Your task to perform on an android device: Go to sound settings Image 0: 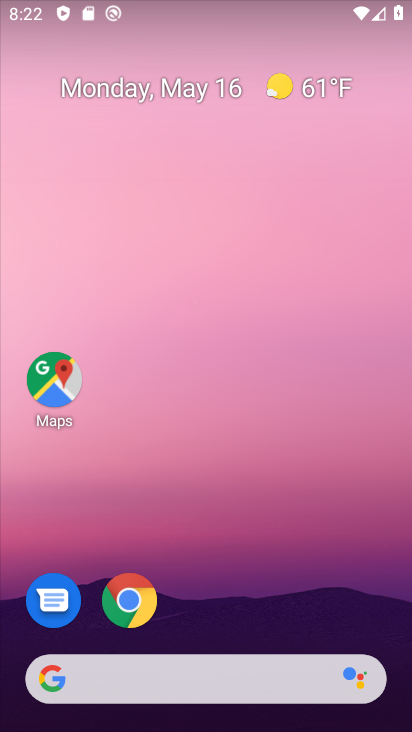
Step 0: drag from (219, 616) to (232, 225)
Your task to perform on an android device: Go to sound settings Image 1: 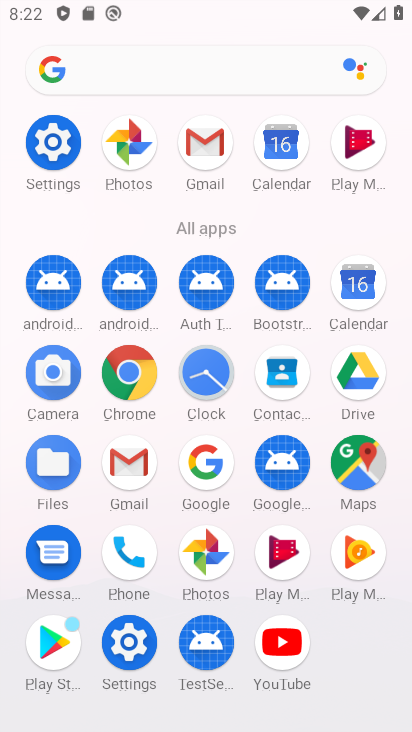
Step 1: click (132, 635)
Your task to perform on an android device: Go to sound settings Image 2: 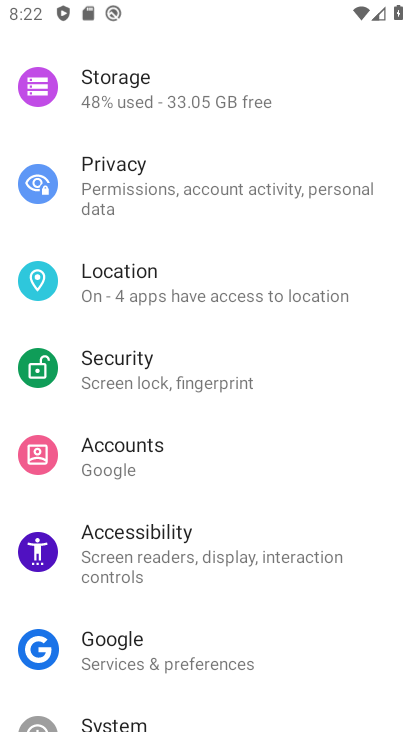
Step 2: drag from (140, 503) to (149, 563)
Your task to perform on an android device: Go to sound settings Image 3: 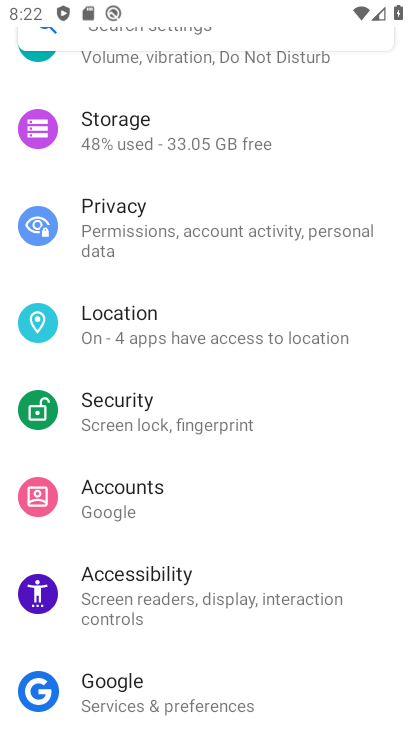
Step 3: drag from (160, 511) to (165, 596)
Your task to perform on an android device: Go to sound settings Image 4: 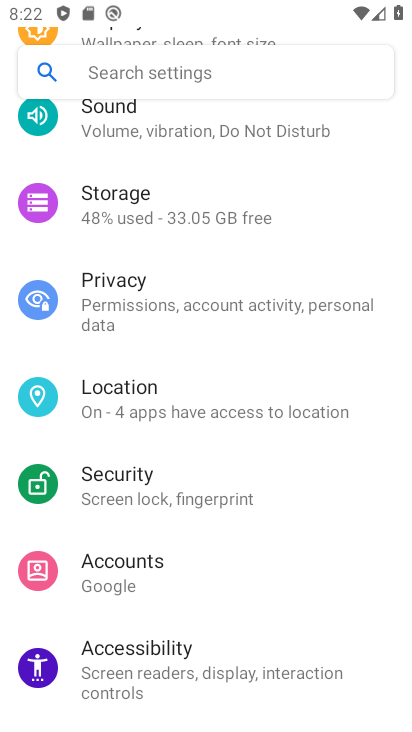
Step 4: drag from (161, 539) to (156, 602)
Your task to perform on an android device: Go to sound settings Image 5: 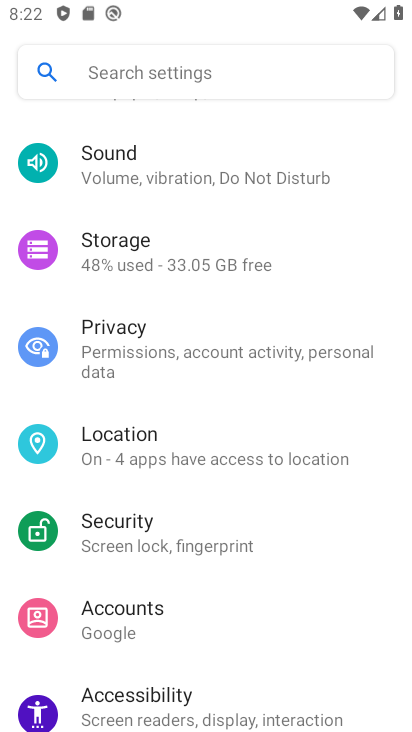
Step 5: click (168, 172)
Your task to perform on an android device: Go to sound settings Image 6: 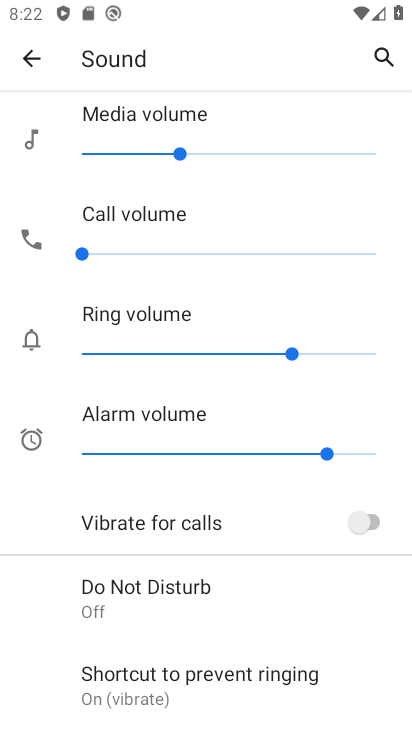
Step 6: task complete